Your task to perform on an android device: make emails show in primary in the gmail app Image 0: 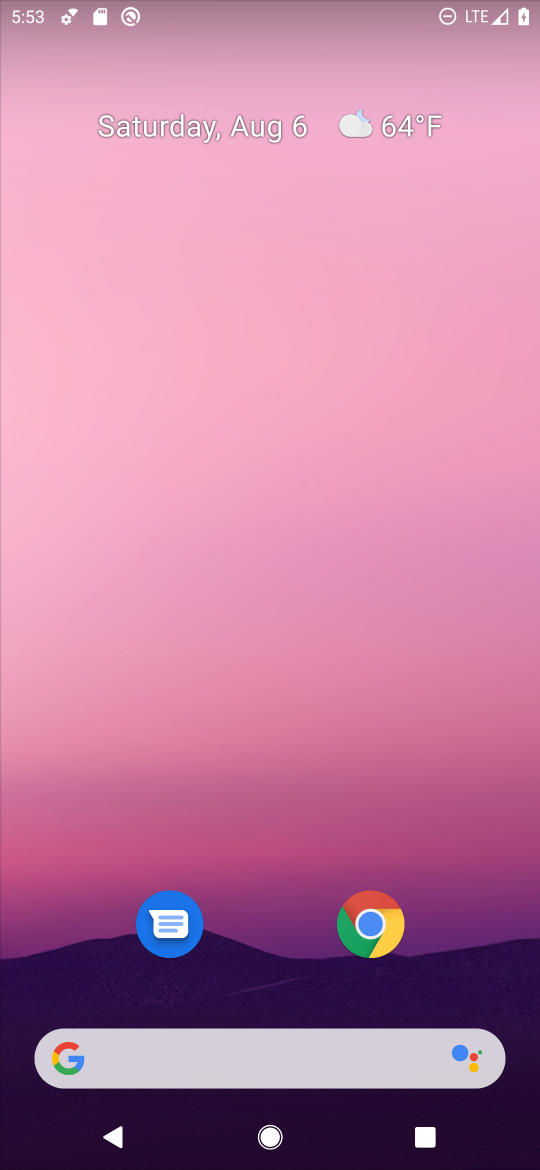
Step 0: drag from (290, 924) to (290, 218)
Your task to perform on an android device: make emails show in primary in the gmail app Image 1: 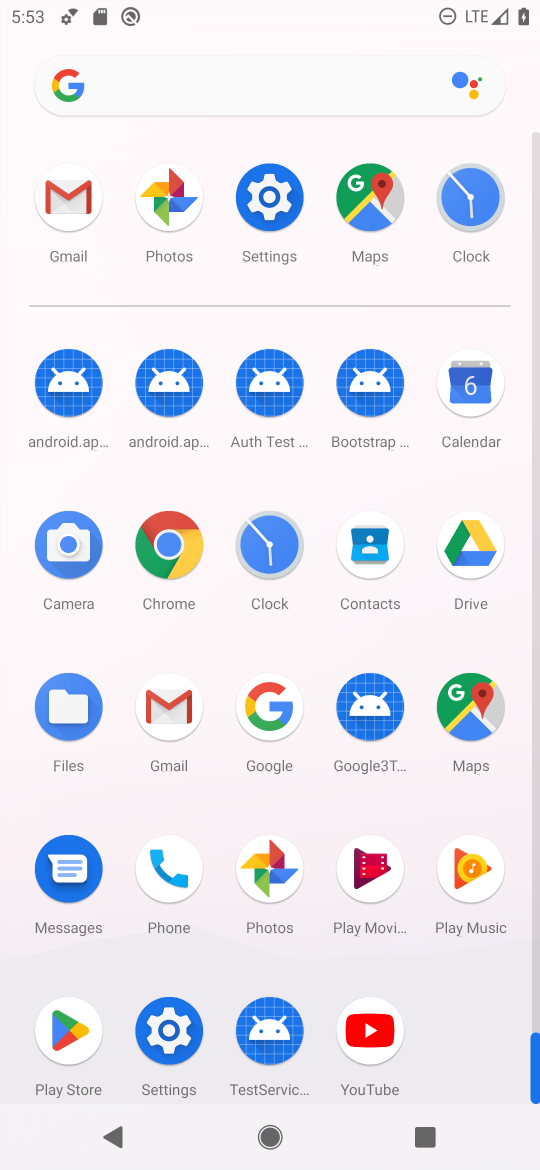
Step 1: click (60, 200)
Your task to perform on an android device: make emails show in primary in the gmail app Image 2: 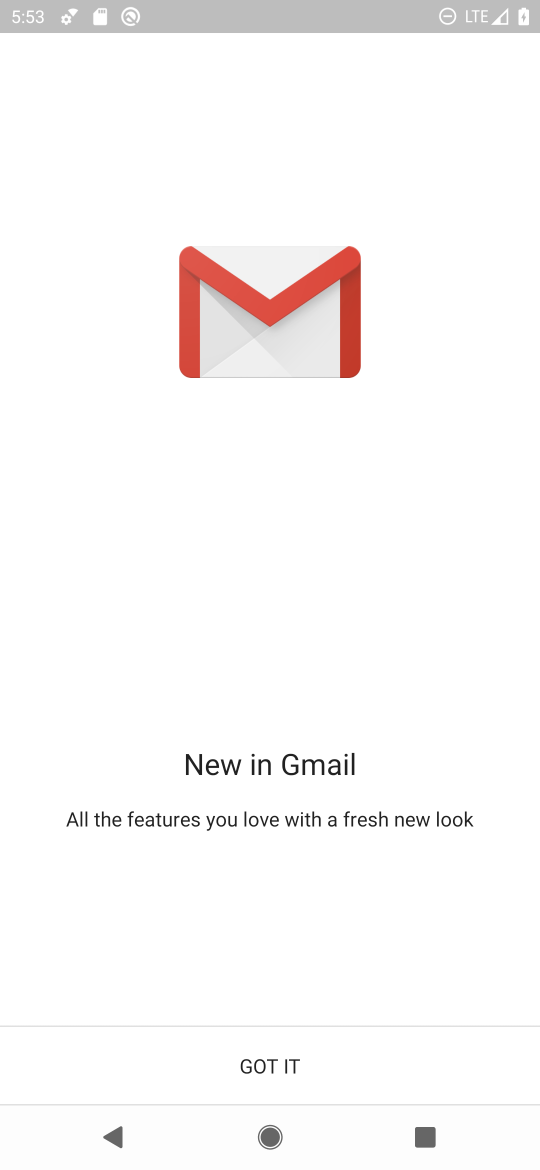
Step 2: click (285, 1054)
Your task to perform on an android device: make emails show in primary in the gmail app Image 3: 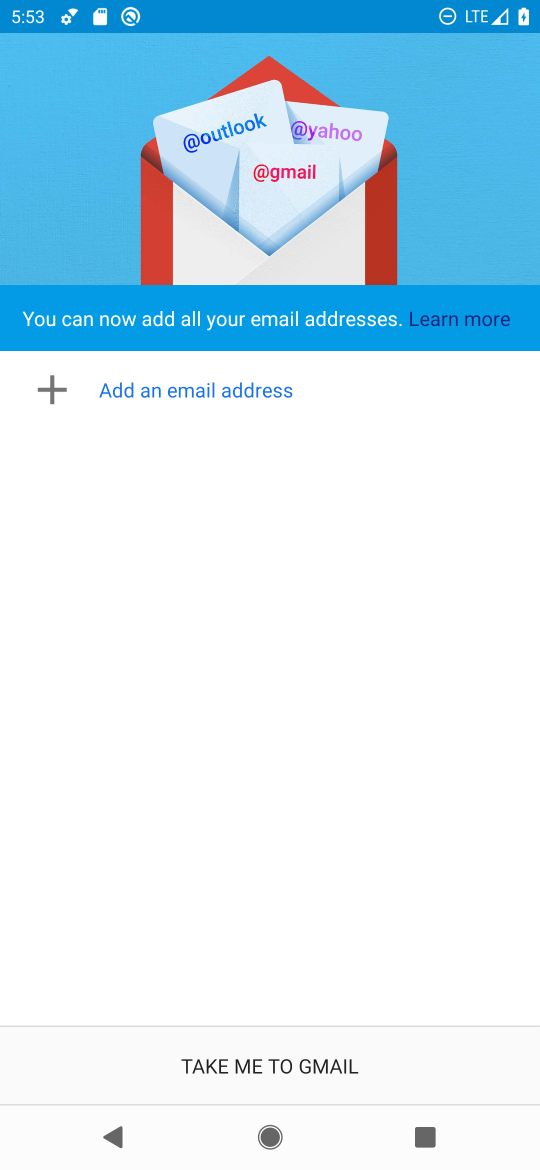
Step 3: click (246, 1055)
Your task to perform on an android device: make emails show in primary in the gmail app Image 4: 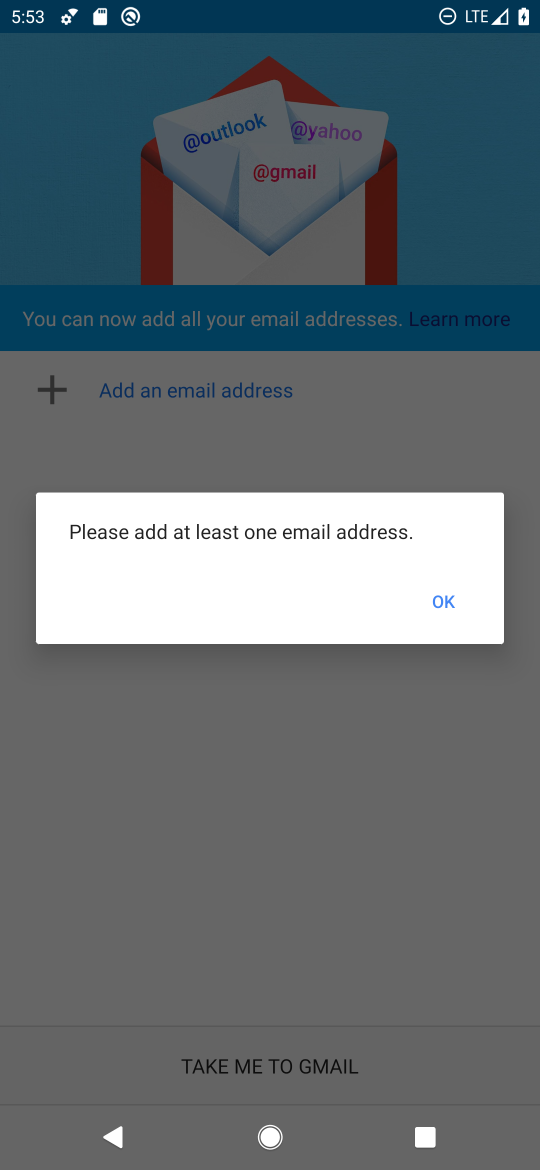
Step 4: task complete